Your task to perform on an android device: Open calendar and show me the second week of next month Image 0: 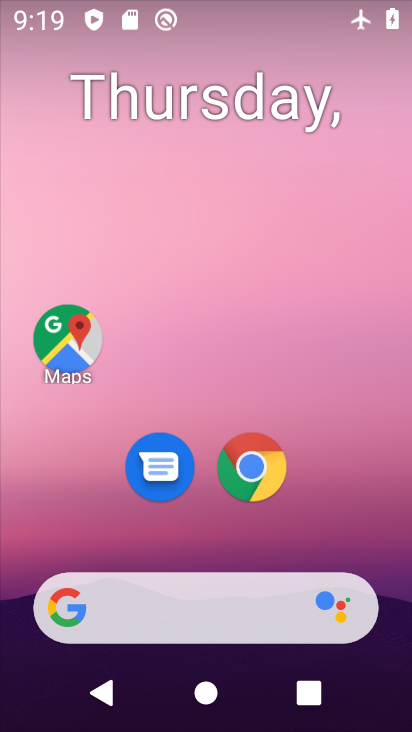
Step 0: drag from (371, 511) to (327, 26)
Your task to perform on an android device: Open calendar and show me the second week of next month Image 1: 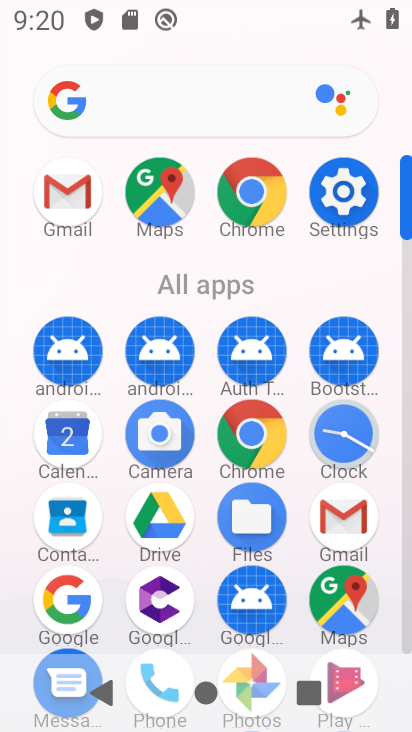
Step 1: drag from (391, 552) to (403, 193)
Your task to perform on an android device: Open calendar and show me the second week of next month Image 2: 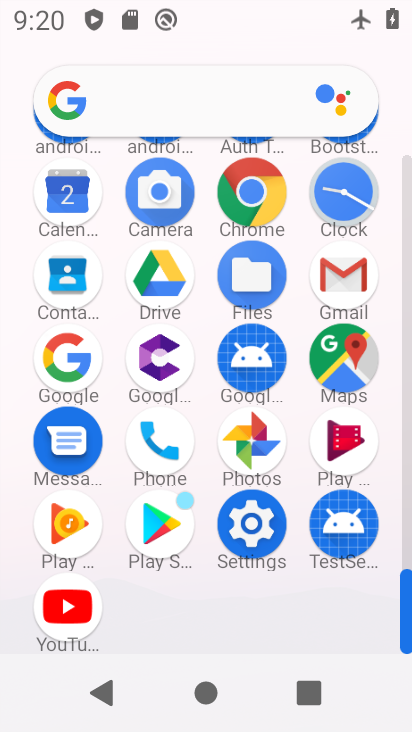
Step 2: click (395, 629)
Your task to perform on an android device: Open calendar and show me the second week of next month Image 3: 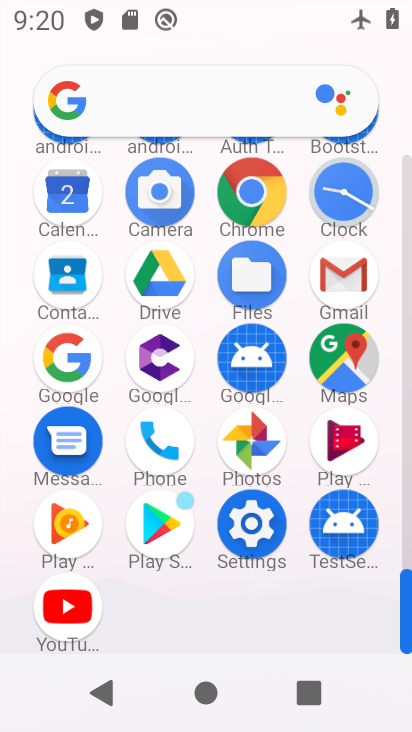
Step 3: drag from (401, 244) to (370, 522)
Your task to perform on an android device: Open calendar and show me the second week of next month Image 4: 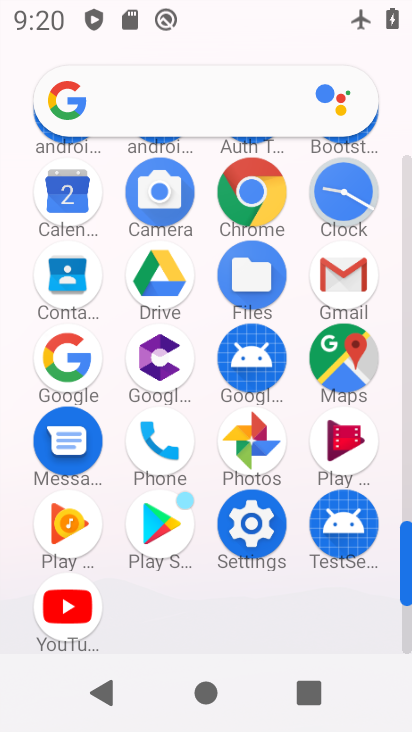
Step 4: drag from (380, 265) to (357, 588)
Your task to perform on an android device: Open calendar and show me the second week of next month Image 5: 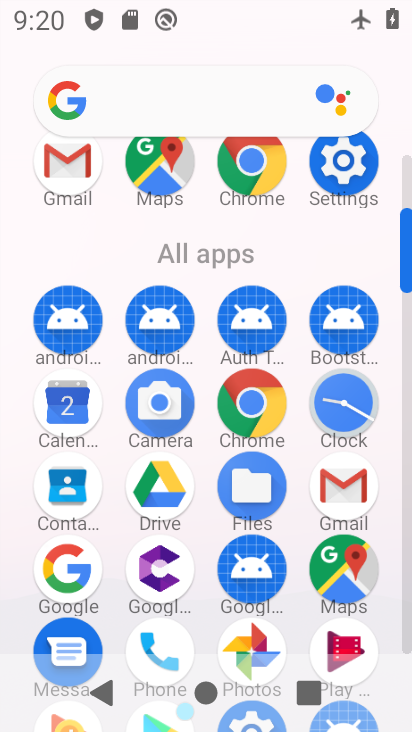
Step 5: drag from (388, 303) to (361, 579)
Your task to perform on an android device: Open calendar and show me the second week of next month Image 6: 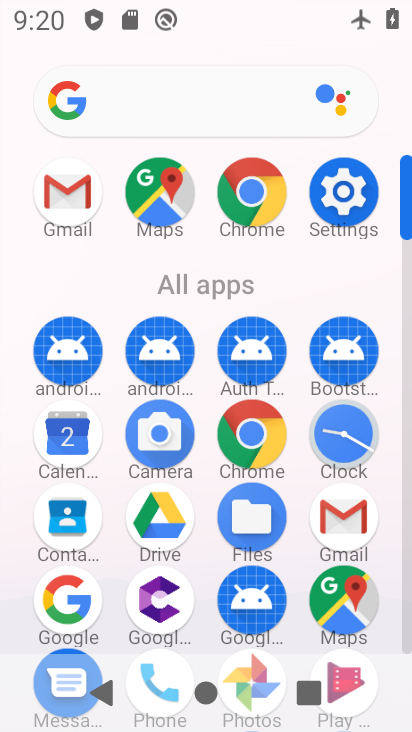
Step 6: click (77, 440)
Your task to perform on an android device: Open calendar and show me the second week of next month Image 7: 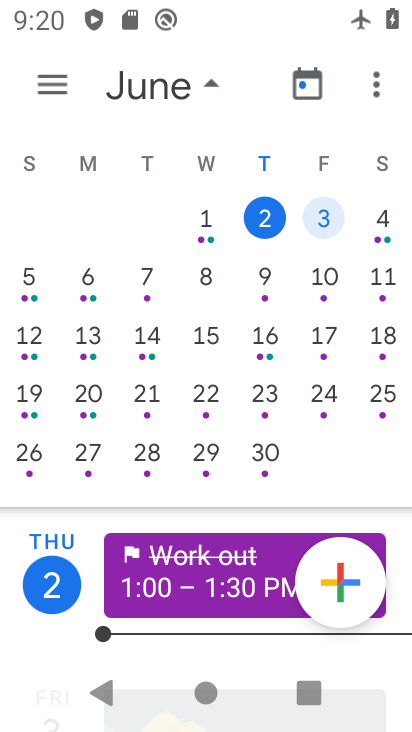
Step 7: drag from (342, 401) to (0, 442)
Your task to perform on an android device: Open calendar and show me the second week of next month Image 8: 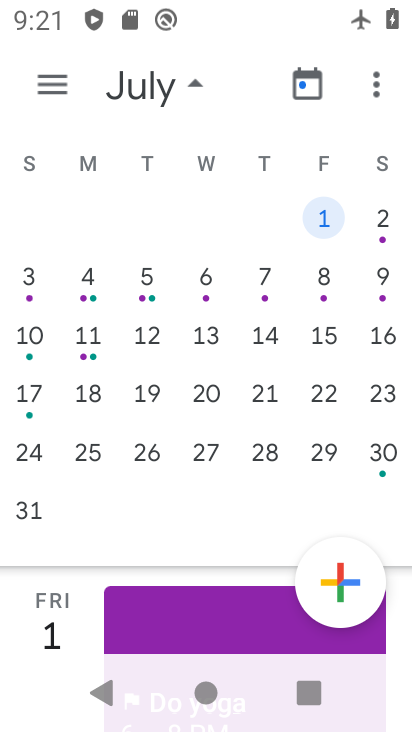
Step 8: click (276, 344)
Your task to perform on an android device: Open calendar and show me the second week of next month Image 9: 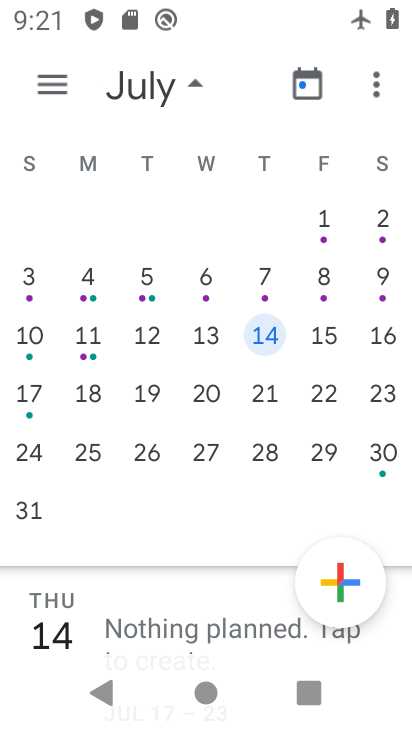
Step 9: task complete